Your task to perform on an android device: turn off sleep mode Image 0: 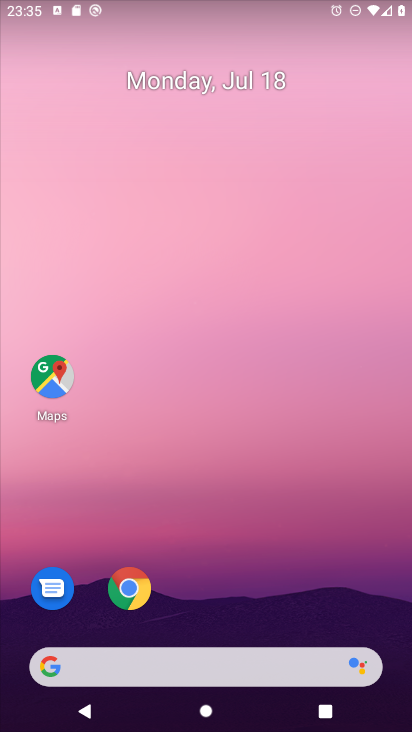
Step 0: drag from (352, 608) to (346, 149)
Your task to perform on an android device: turn off sleep mode Image 1: 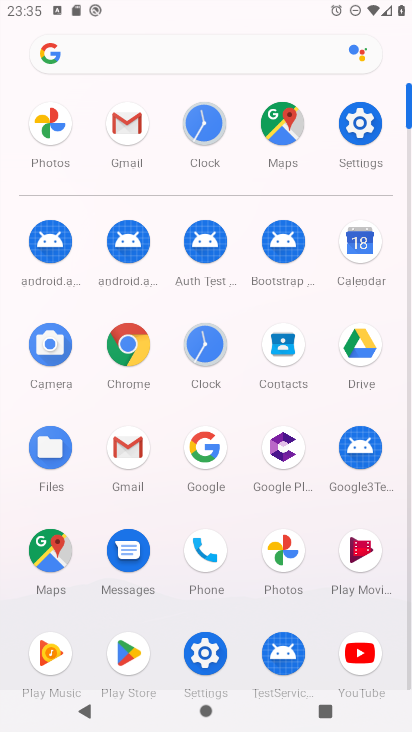
Step 1: click (205, 653)
Your task to perform on an android device: turn off sleep mode Image 2: 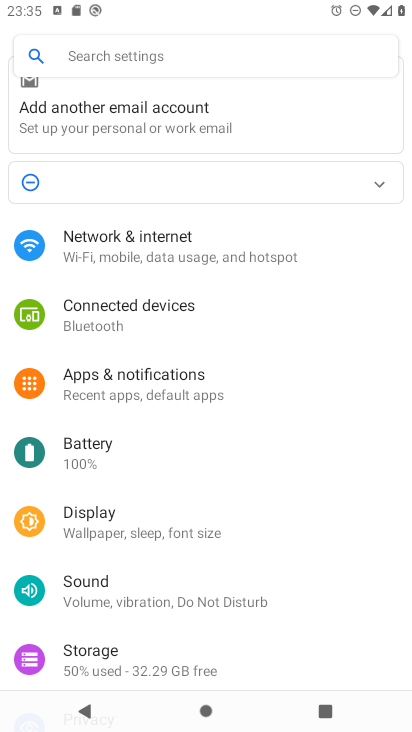
Step 2: click (101, 518)
Your task to perform on an android device: turn off sleep mode Image 3: 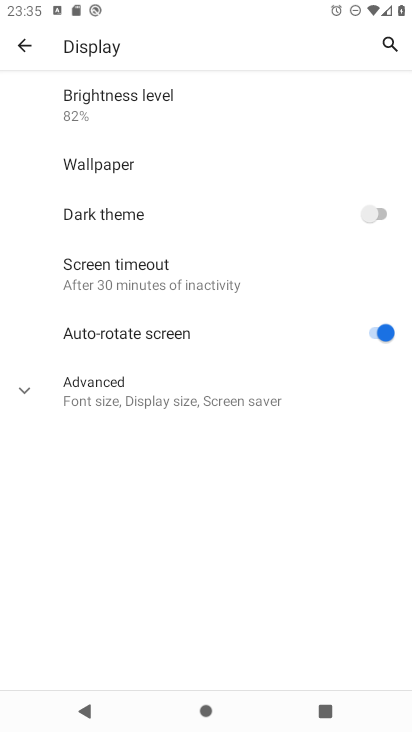
Step 3: click (22, 385)
Your task to perform on an android device: turn off sleep mode Image 4: 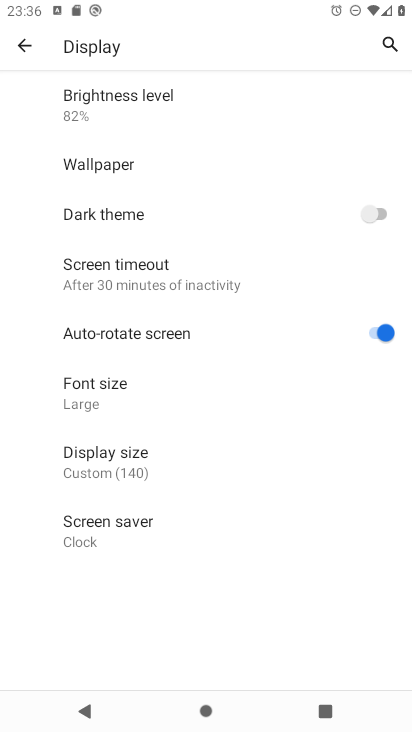
Step 4: task complete